Your task to perform on an android device: open app "DoorDash - Food Delivery" Image 0: 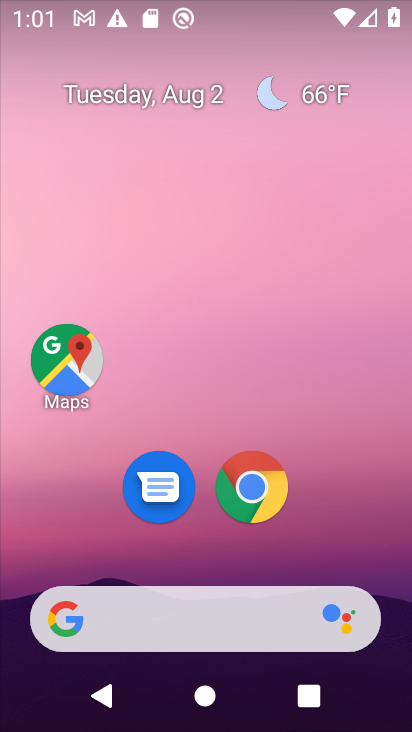
Step 0: drag from (246, 589) to (283, 196)
Your task to perform on an android device: open app "DoorDash - Food Delivery" Image 1: 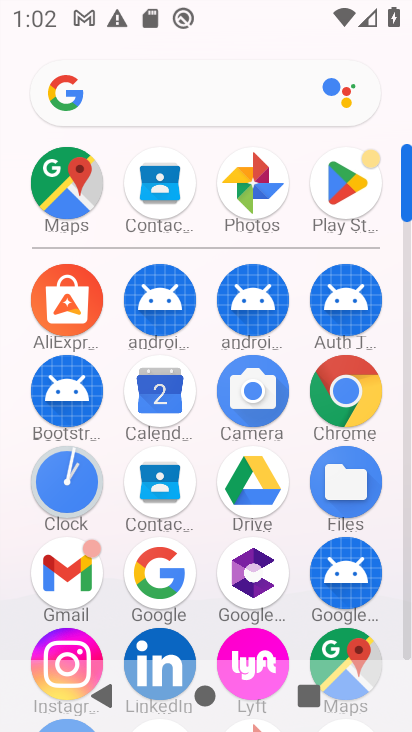
Step 1: click (343, 211)
Your task to perform on an android device: open app "DoorDash - Food Delivery" Image 2: 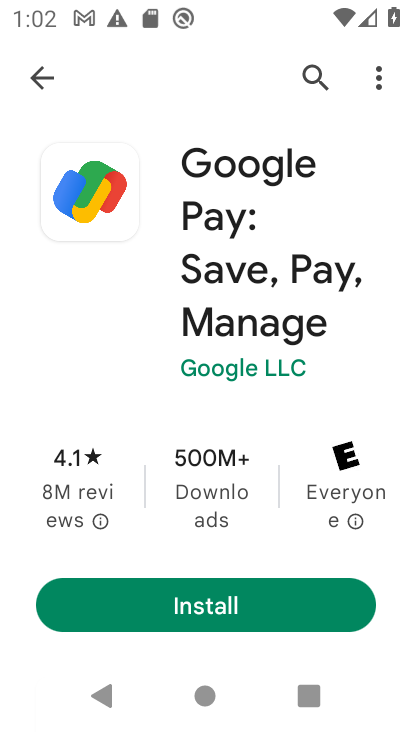
Step 2: click (50, 69)
Your task to perform on an android device: open app "DoorDash - Food Delivery" Image 3: 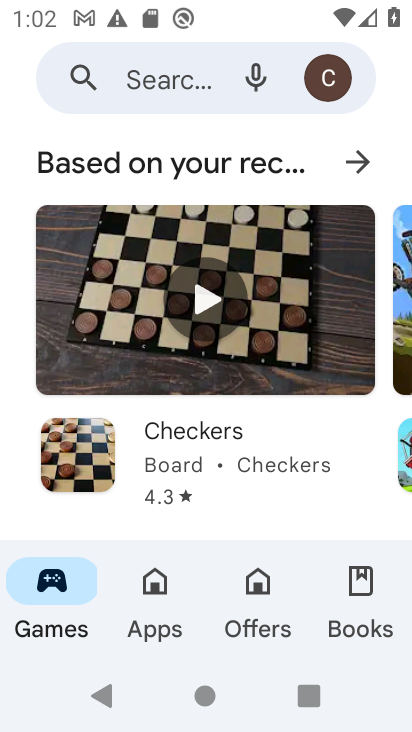
Step 3: click (49, 87)
Your task to perform on an android device: open app "DoorDash - Food Delivery" Image 4: 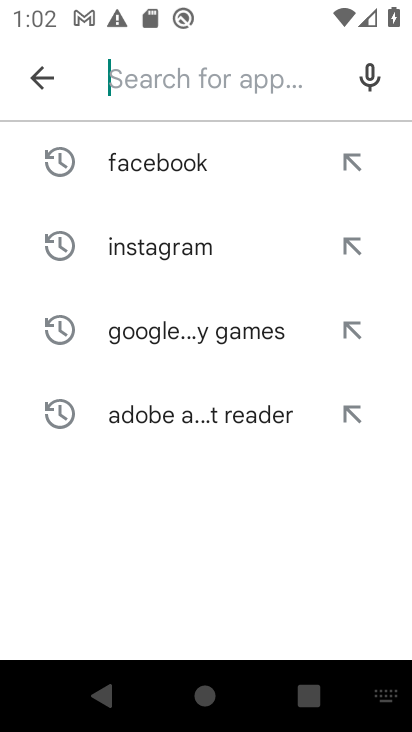
Step 4: type "DoorDash - Food Delivery"
Your task to perform on an android device: open app "DoorDash - Food Delivery" Image 5: 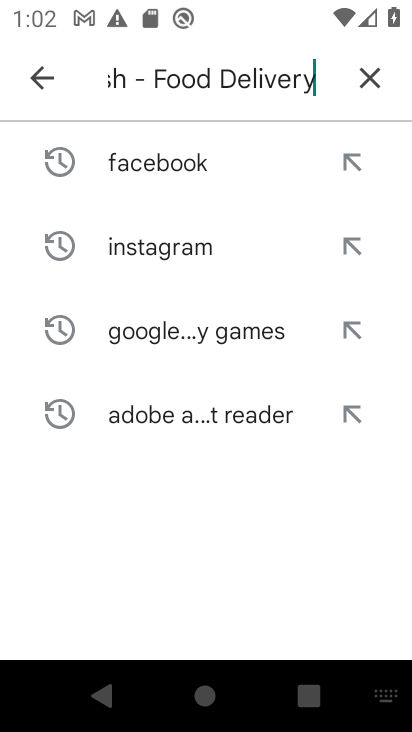
Step 5: type ""
Your task to perform on an android device: open app "DoorDash - Food Delivery" Image 6: 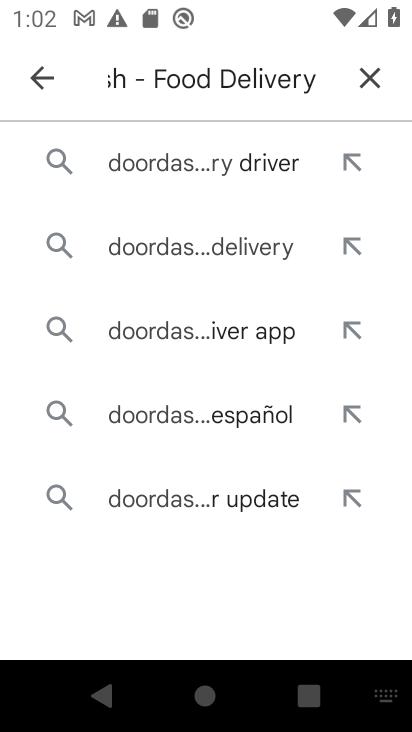
Step 6: click (218, 166)
Your task to perform on an android device: open app "DoorDash - Food Delivery" Image 7: 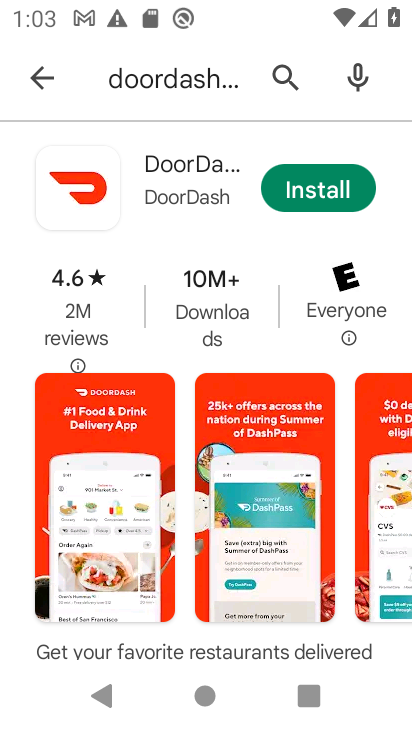
Step 7: task complete